Your task to perform on an android device: Add razer blade to the cart on newegg.com Image 0: 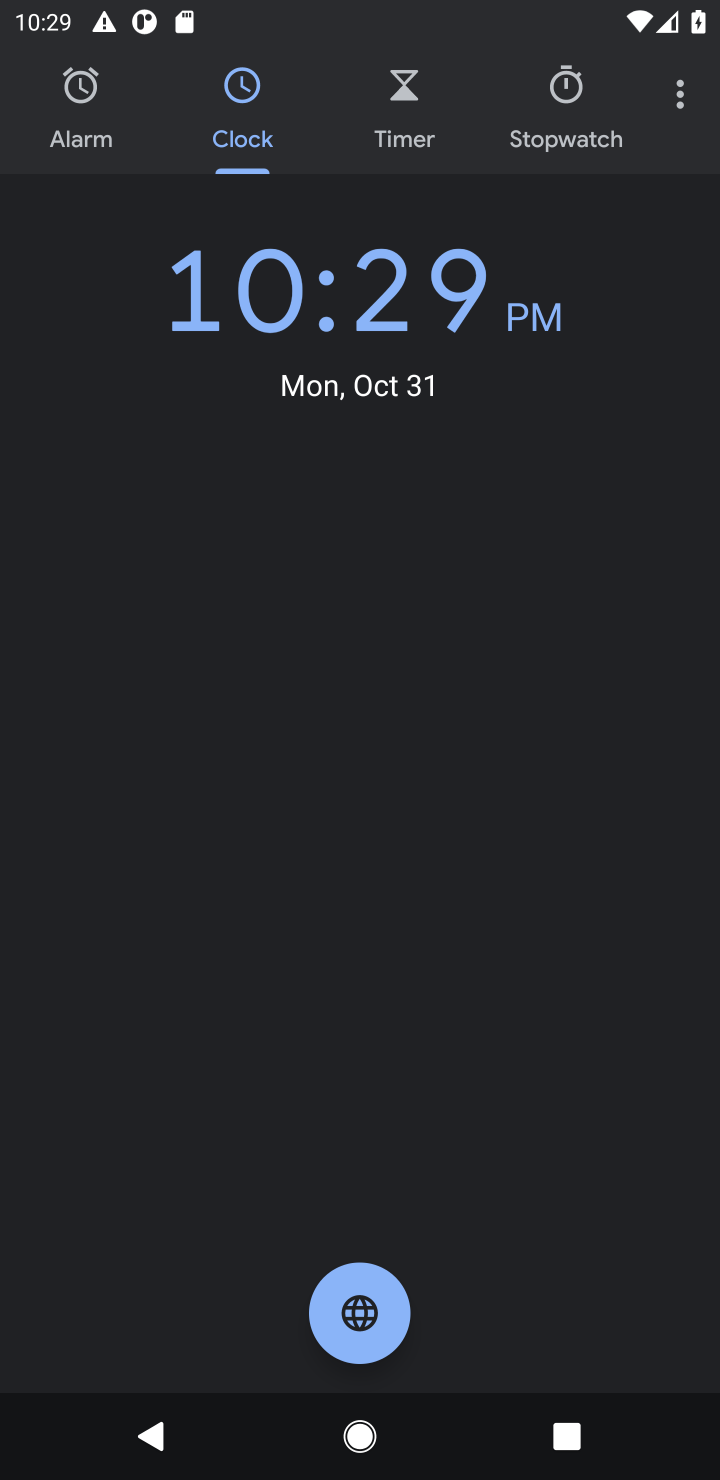
Step 0: press home button
Your task to perform on an android device: Add razer blade to the cart on newegg.com Image 1: 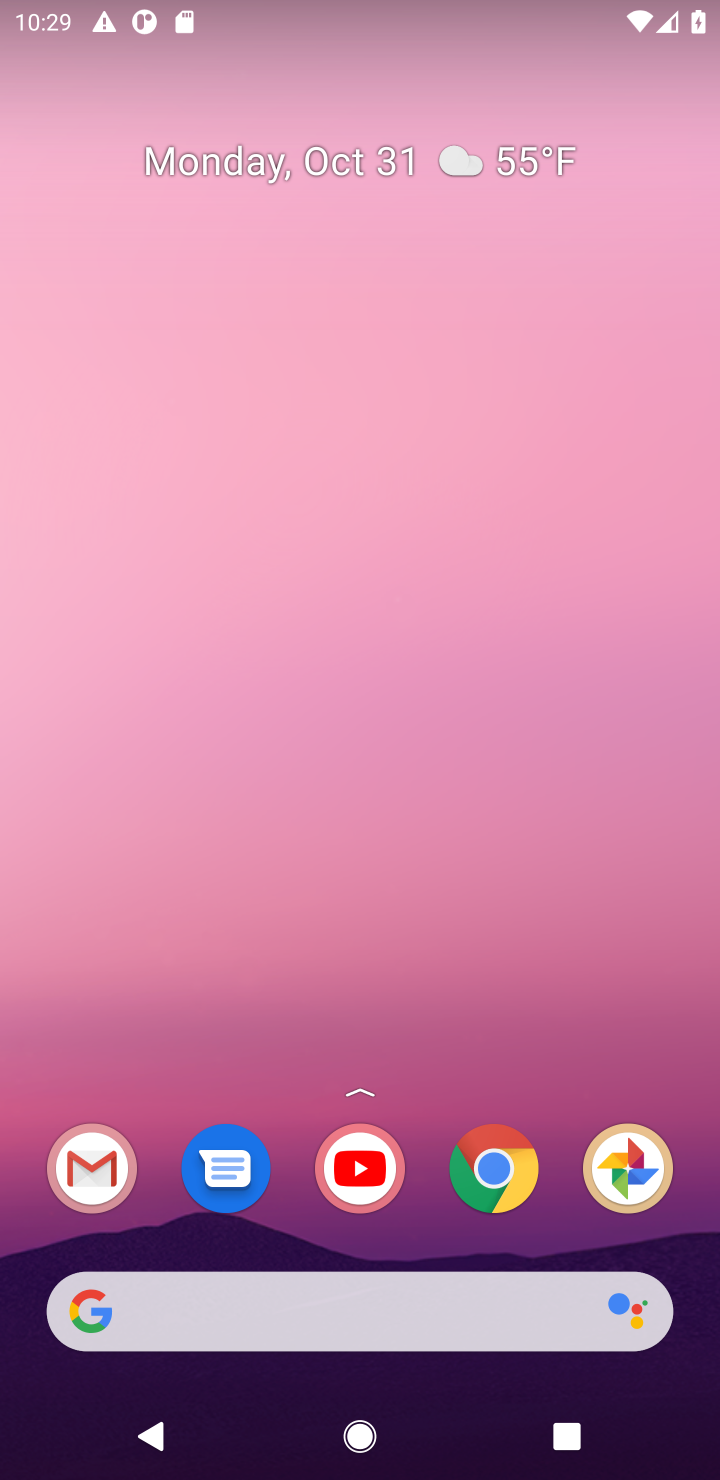
Step 1: click (499, 1183)
Your task to perform on an android device: Add razer blade to the cart on newegg.com Image 2: 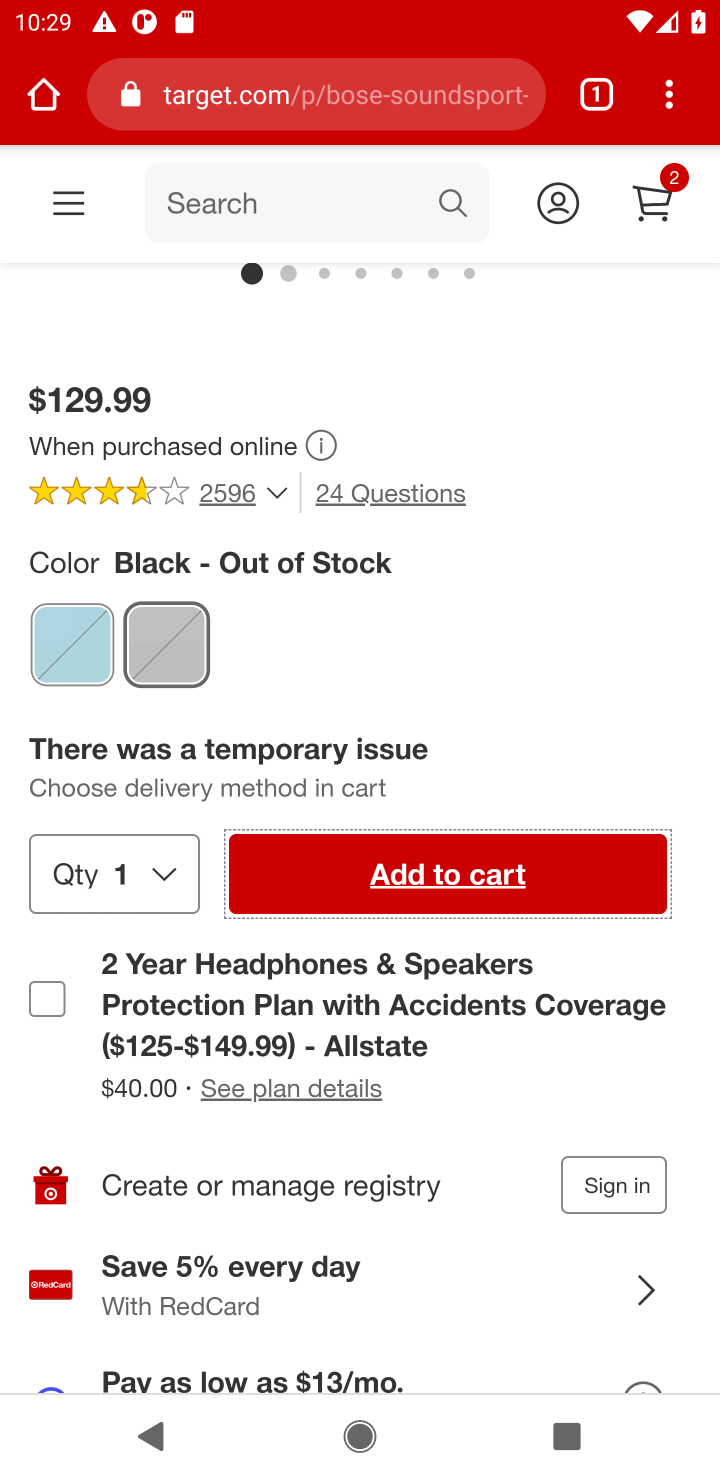
Step 2: click (276, 99)
Your task to perform on an android device: Add razer blade to the cart on newegg.com Image 3: 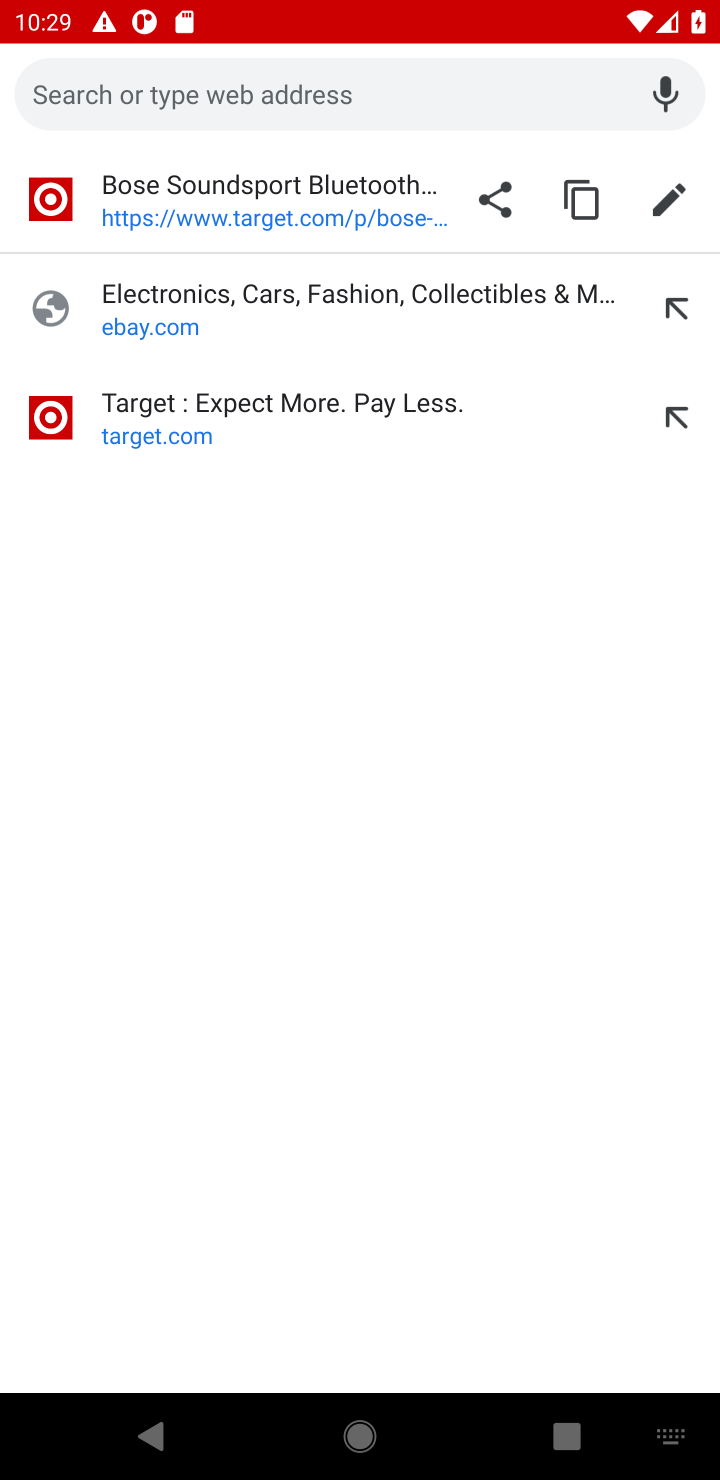
Step 3: type "newegg.com"
Your task to perform on an android device: Add razer blade to the cart on newegg.com Image 4: 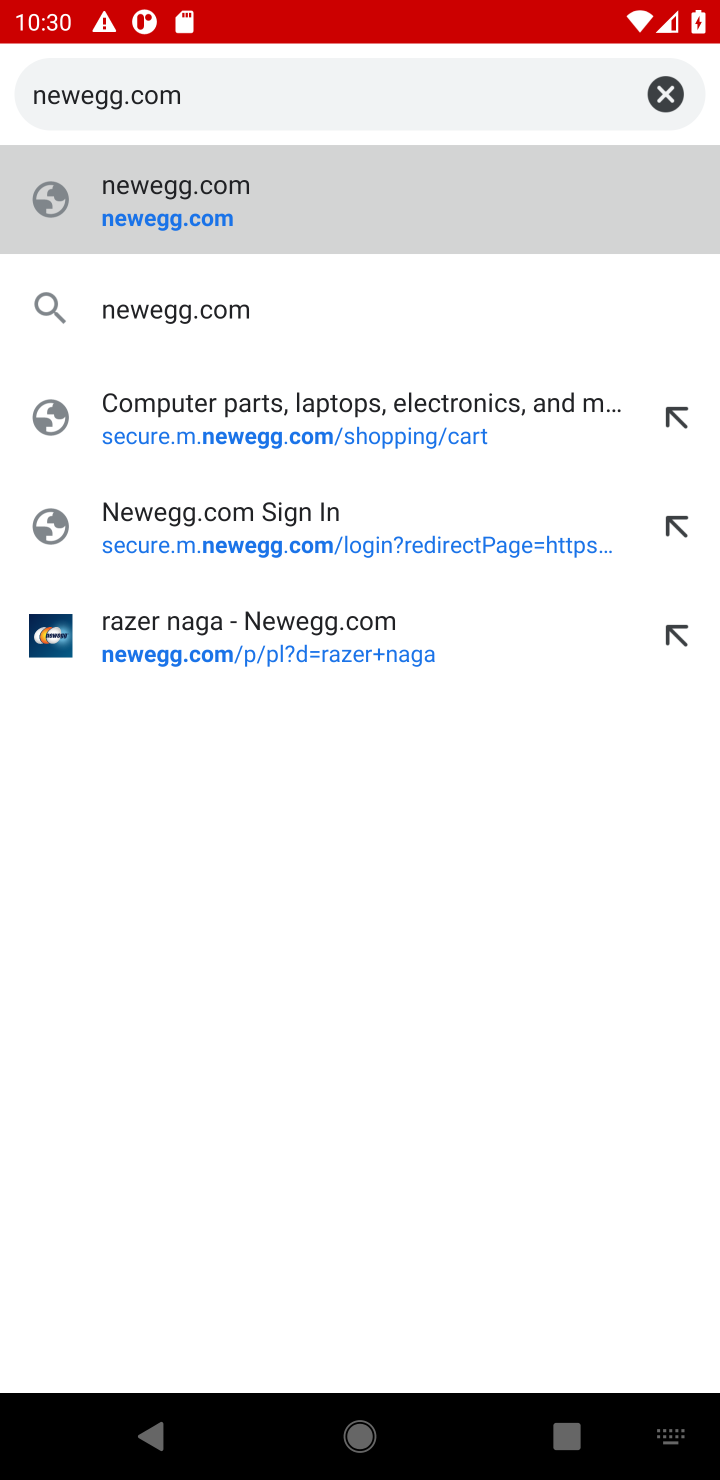
Step 4: click (191, 195)
Your task to perform on an android device: Add razer blade to the cart on newegg.com Image 5: 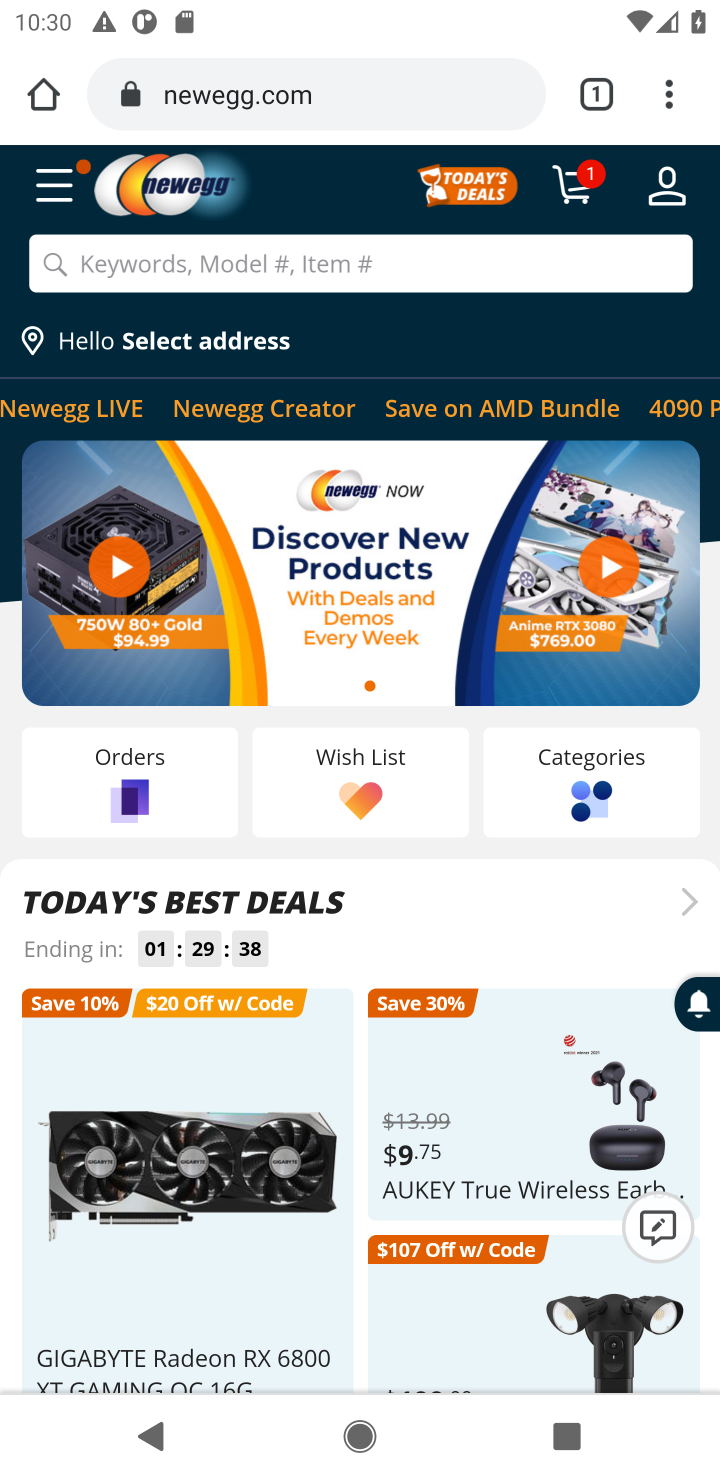
Step 5: click (234, 261)
Your task to perform on an android device: Add razer blade to the cart on newegg.com Image 6: 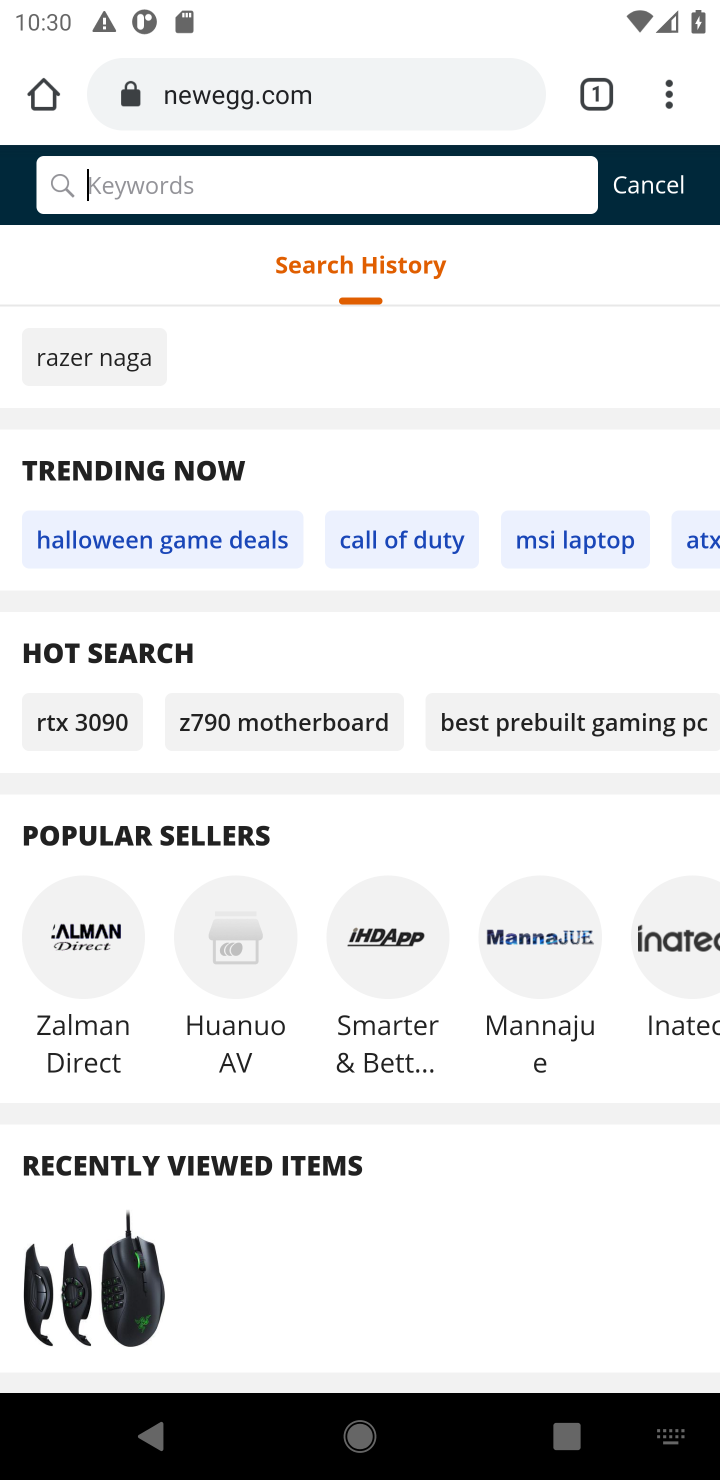
Step 6: type "razer blade"
Your task to perform on an android device: Add razer blade to the cart on newegg.com Image 7: 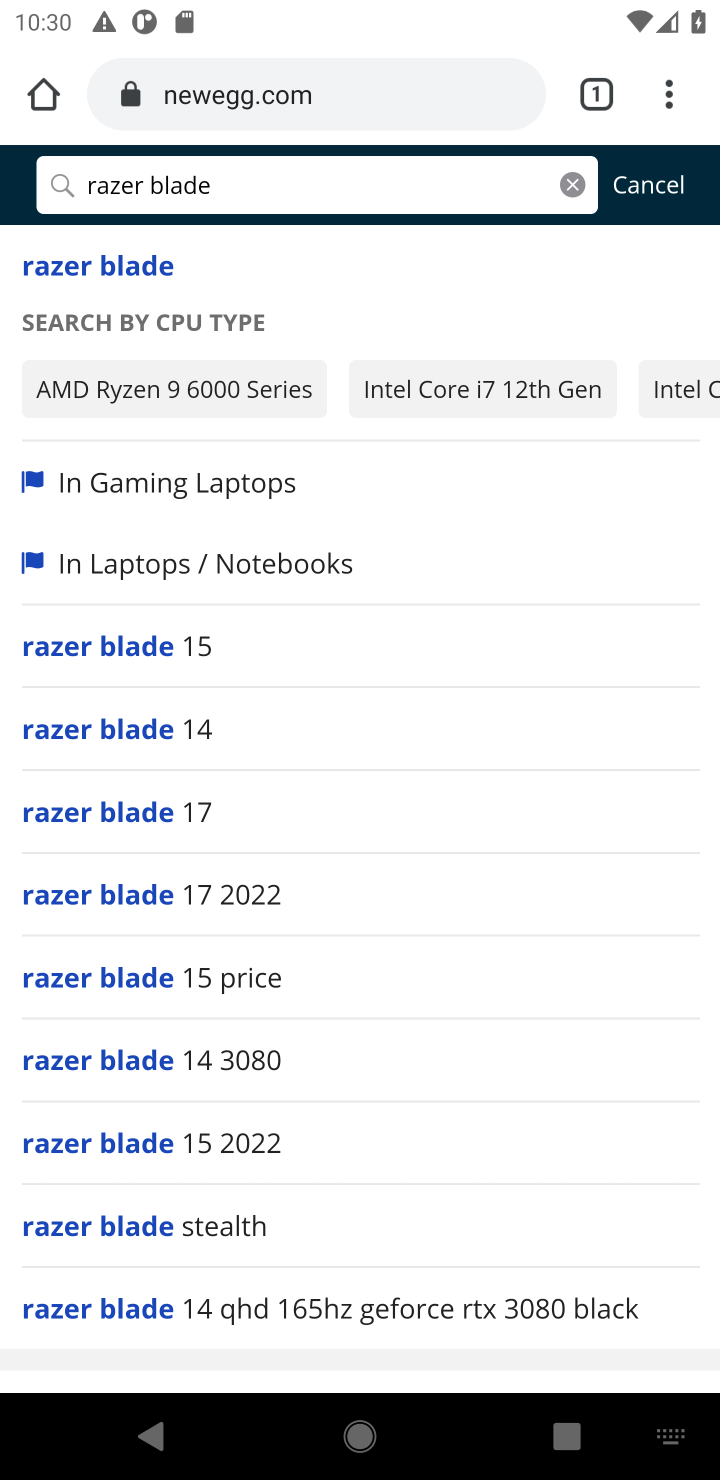
Step 7: press enter
Your task to perform on an android device: Add razer blade to the cart on newegg.com Image 8: 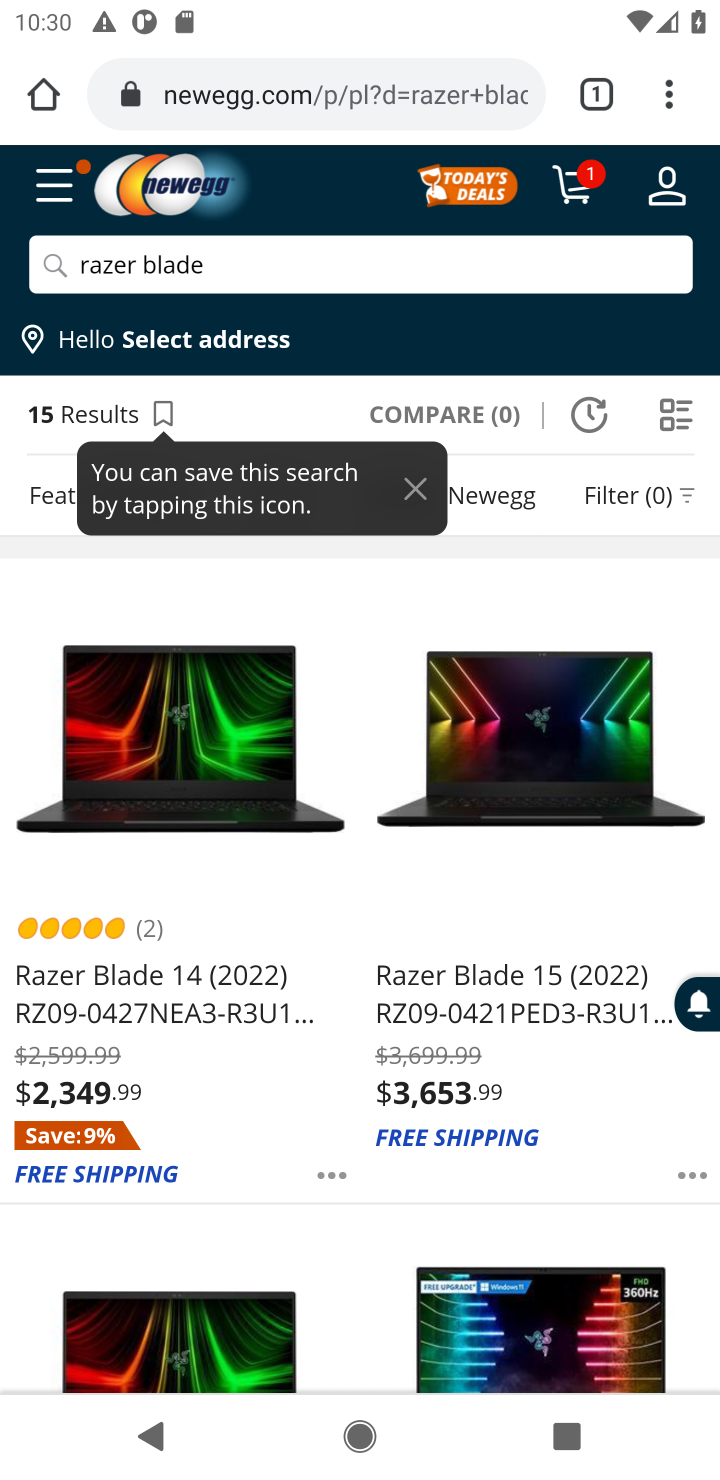
Step 8: click (239, 981)
Your task to perform on an android device: Add razer blade to the cart on newegg.com Image 9: 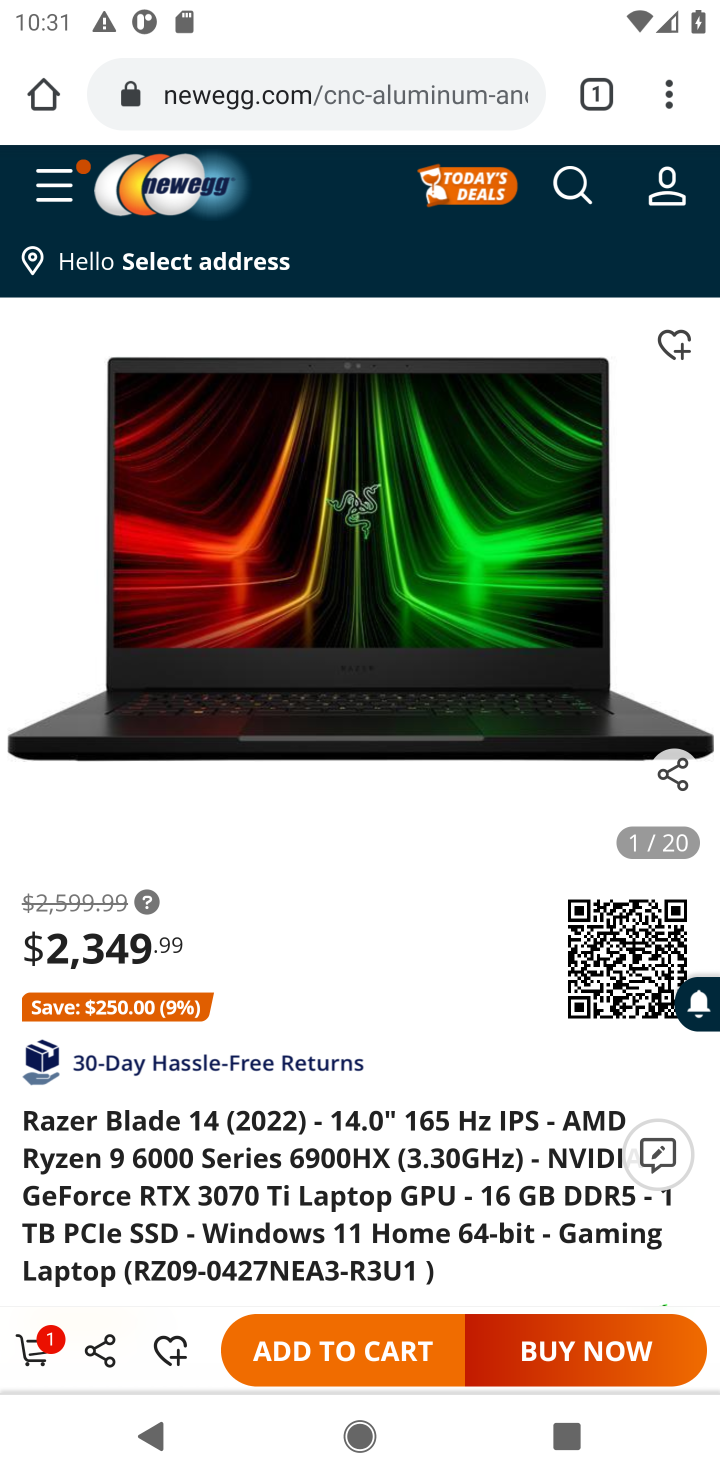
Step 9: click (355, 1351)
Your task to perform on an android device: Add razer blade to the cart on newegg.com Image 10: 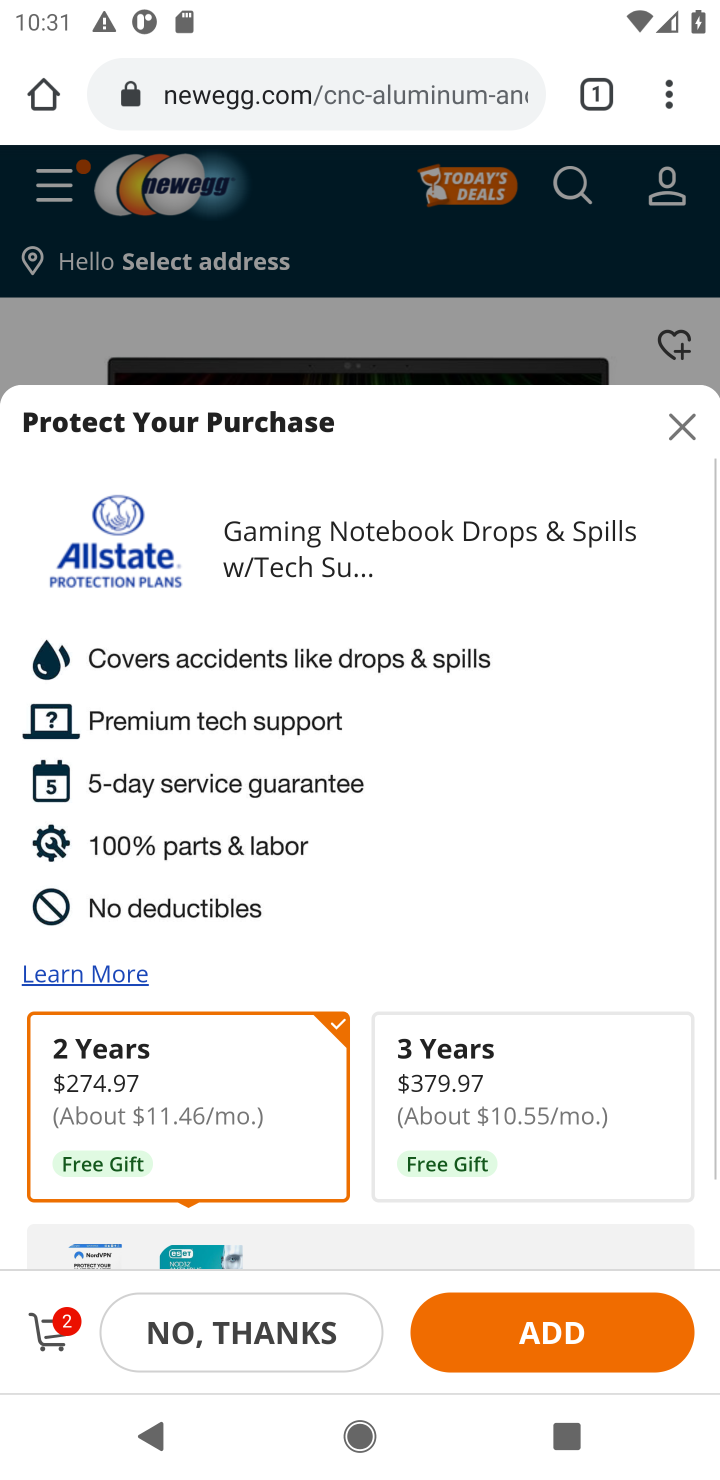
Step 10: click (281, 1320)
Your task to perform on an android device: Add razer blade to the cart on newegg.com Image 11: 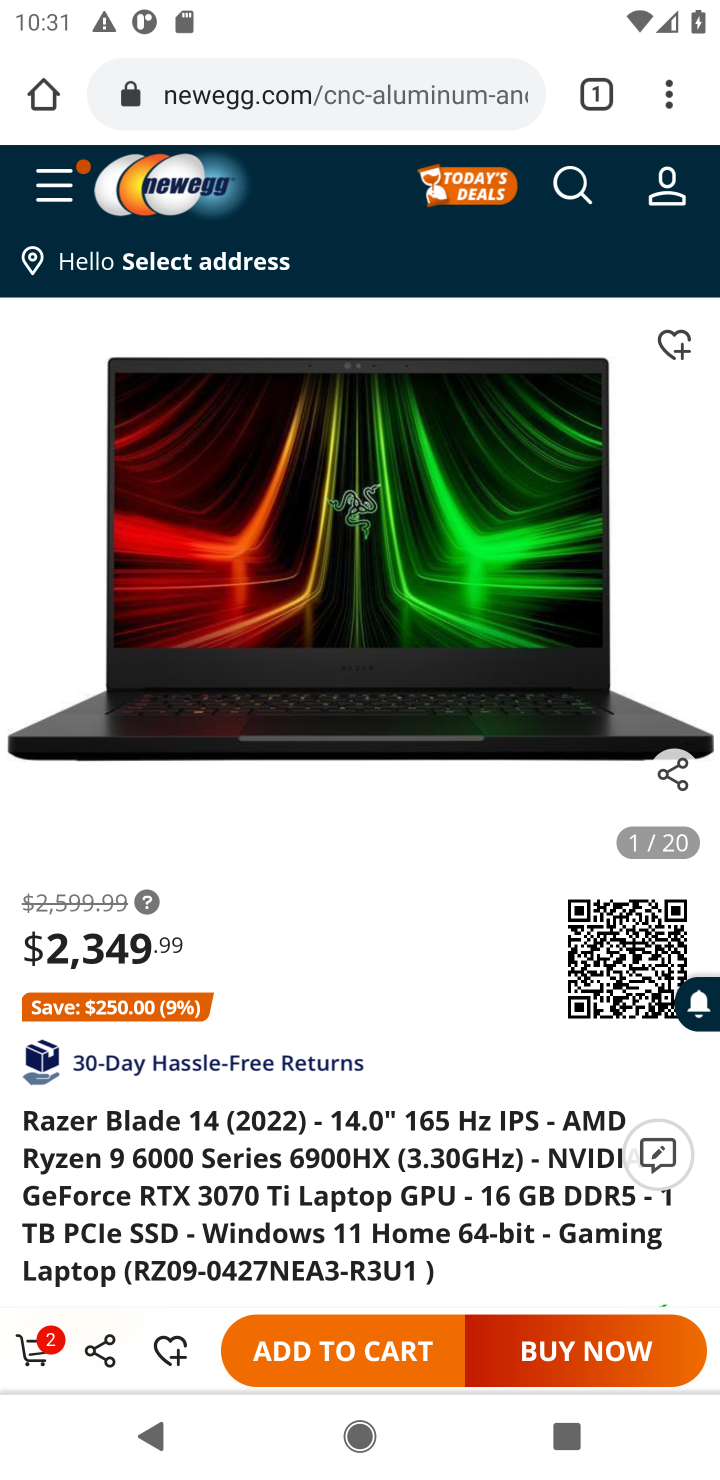
Step 11: task complete